Your task to perform on an android device: turn off sleep mode Image 0: 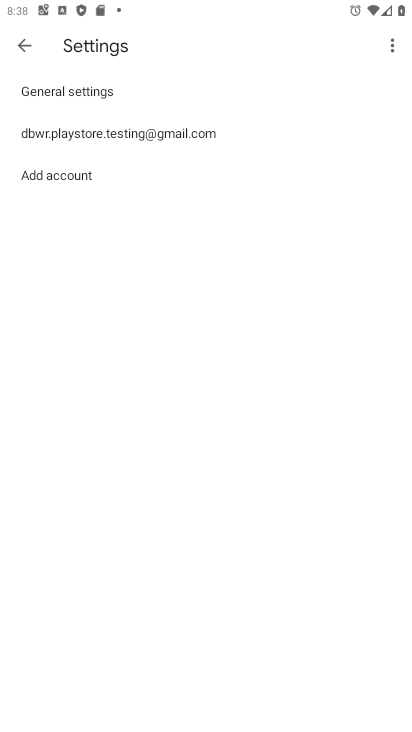
Step 0: press home button
Your task to perform on an android device: turn off sleep mode Image 1: 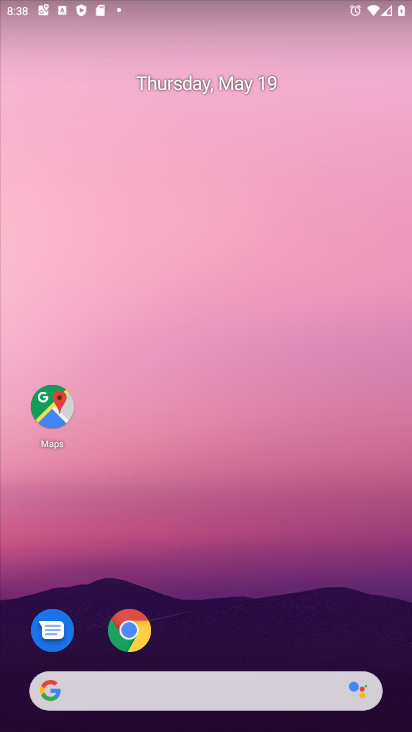
Step 1: drag from (371, 637) to (311, 82)
Your task to perform on an android device: turn off sleep mode Image 2: 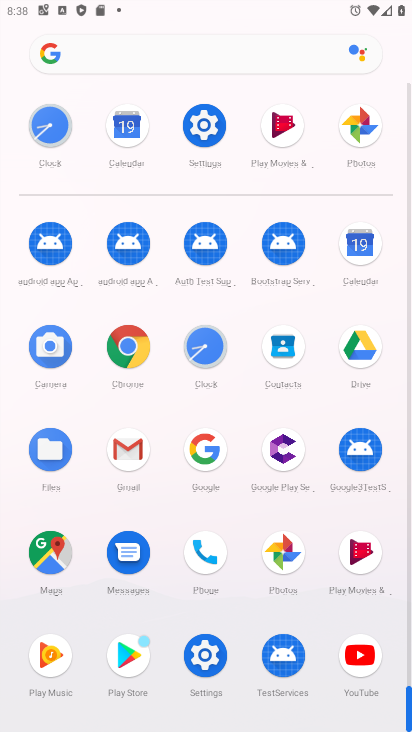
Step 2: click (204, 653)
Your task to perform on an android device: turn off sleep mode Image 3: 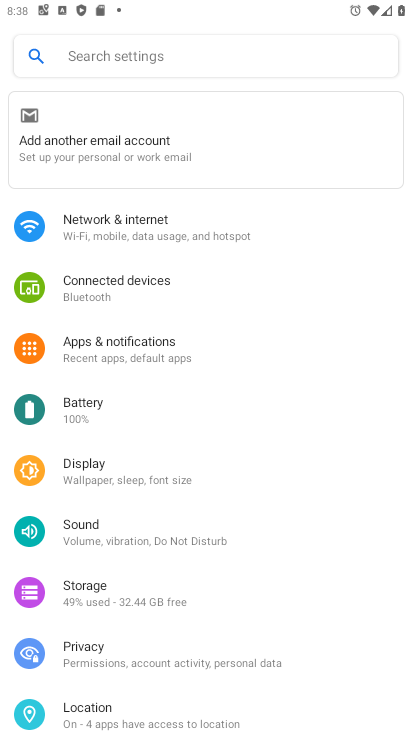
Step 3: click (96, 473)
Your task to perform on an android device: turn off sleep mode Image 4: 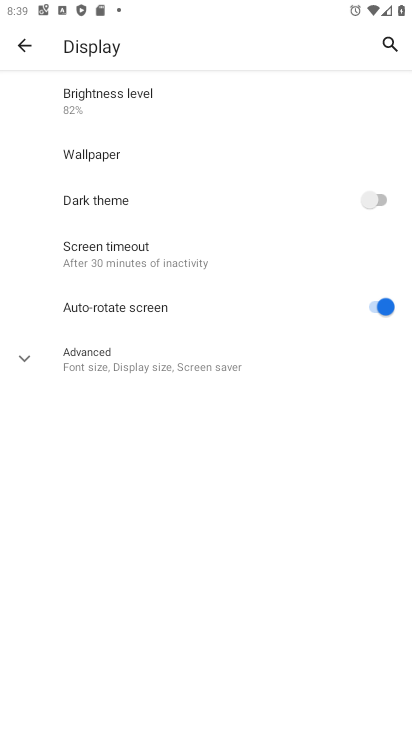
Step 4: click (22, 355)
Your task to perform on an android device: turn off sleep mode Image 5: 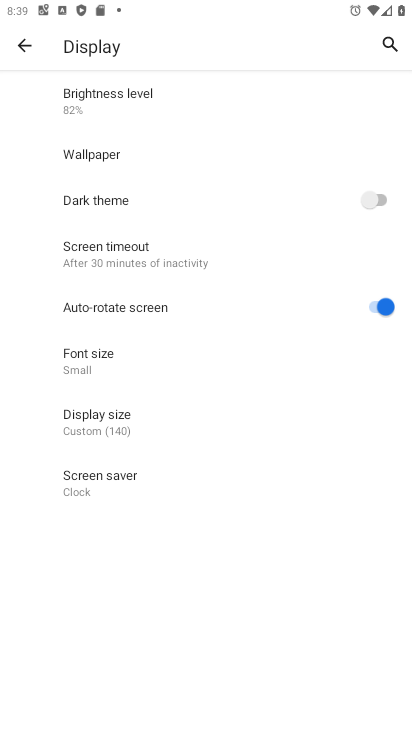
Step 5: task complete